Your task to perform on an android device: change the clock style Image 0: 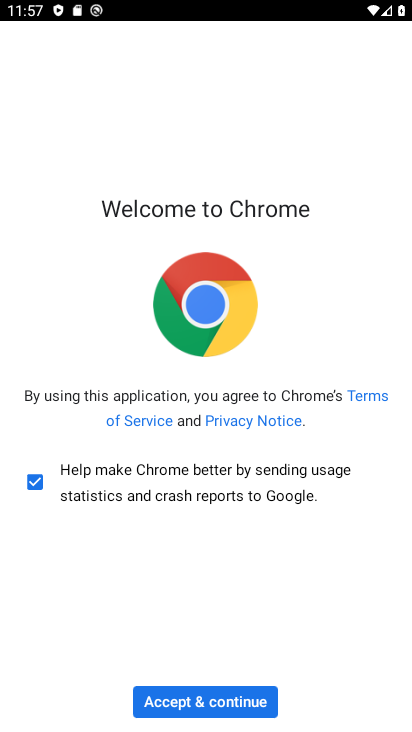
Step 0: press home button
Your task to perform on an android device: change the clock style Image 1: 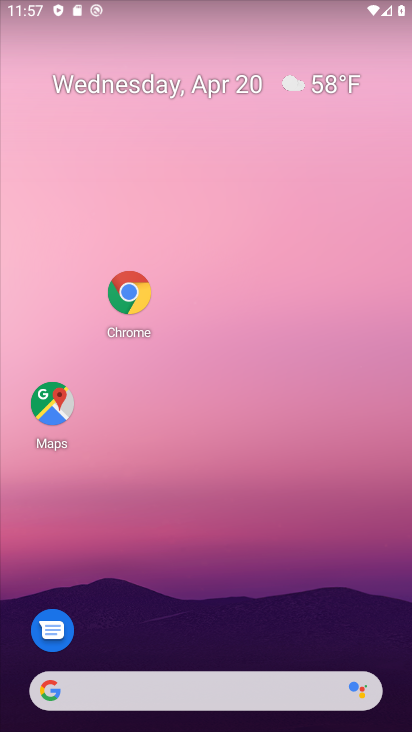
Step 1: drag from (193, 648) to (194, 443)
Your task to perform on an android device: change the clock style Image 2: 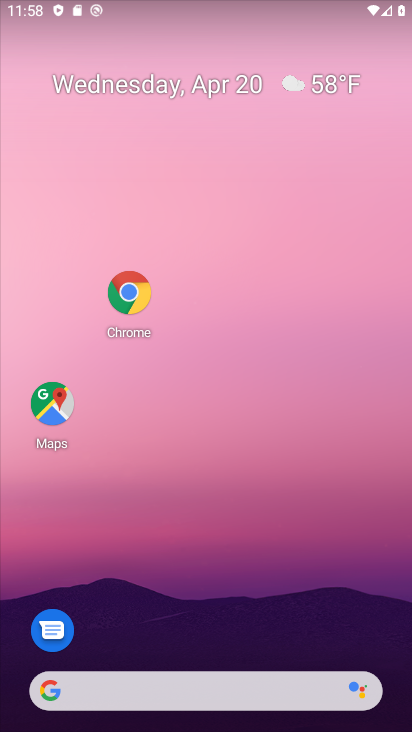
Step 2: drag from (202, 643) to (176, 277)
Your task to perform on an android device: change the clock style Image 3: 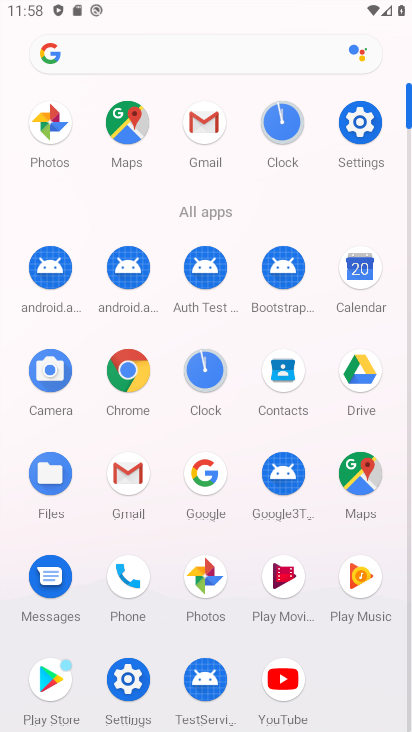
Step 3: click (280, 130)
Your task to perform on an android device: change the clock style Image 4: 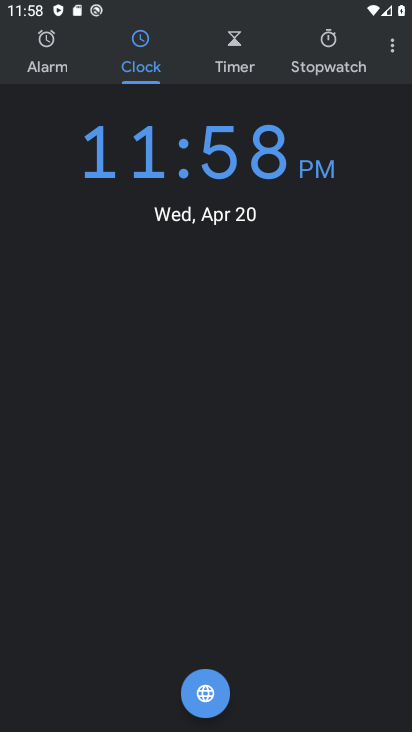
Step 4: click (394, 44)
Your task to perform on an android device: change the clock style Image 5: 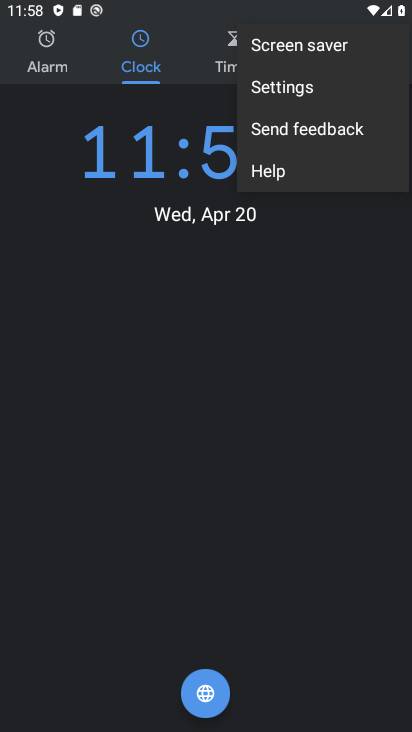
Step 5: click (324, 82)
Your task to perform on an android device: change the clock style Image 6: 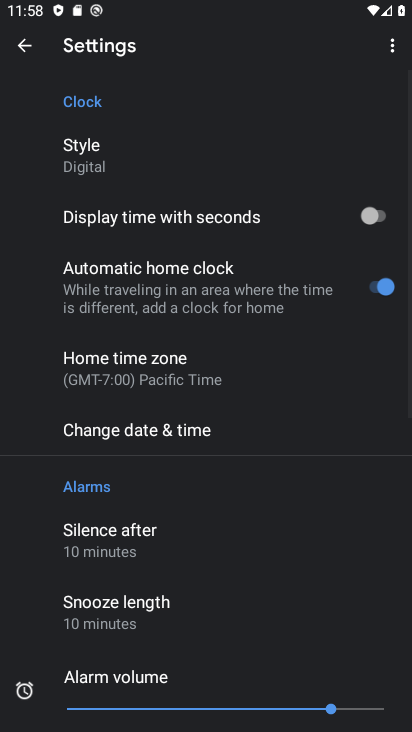
Step 6: click (120, 177)
Your task to perform on an android device: change the clock style Image 7: 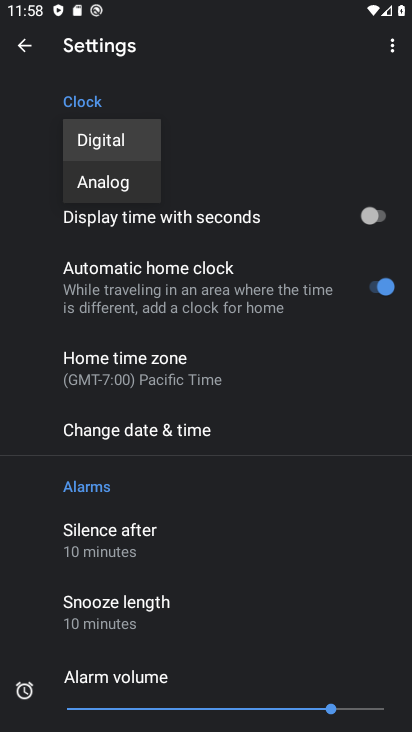
Step 7: click (121, 192)
Your task to perform on an android device: change the clock style Image 8: 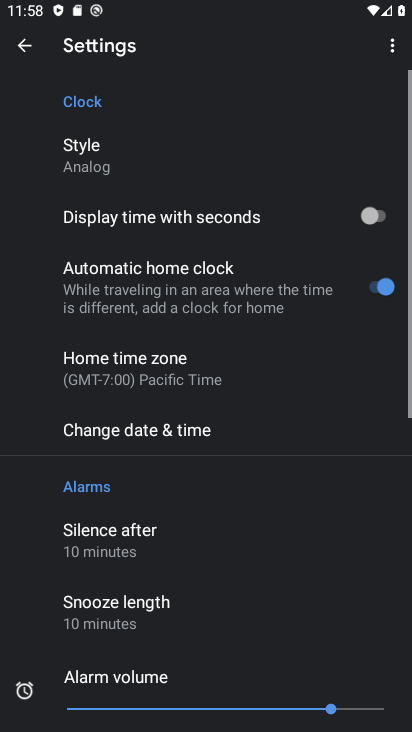
Step 8: task complete